Your task to perform on an android device: check battery use Image 0: 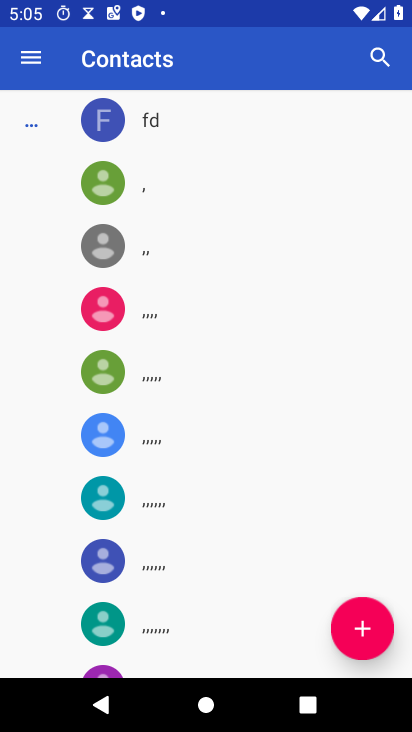
Step 0: press back button
Your task to perform on an android device: check battery use Image 1: 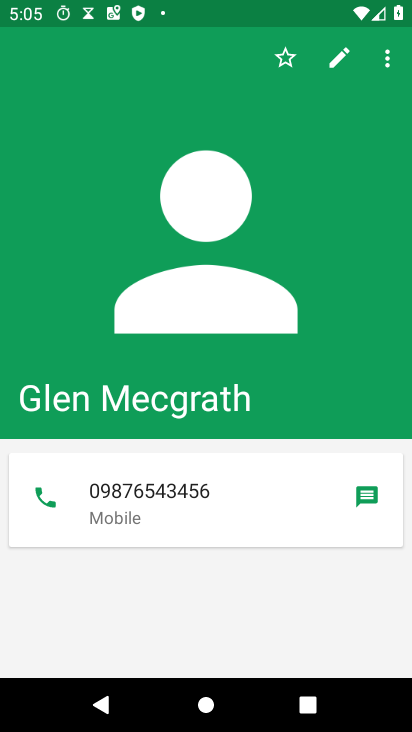
Step 1: press back button
Your task to perform on an android device: check battery use Image 2: 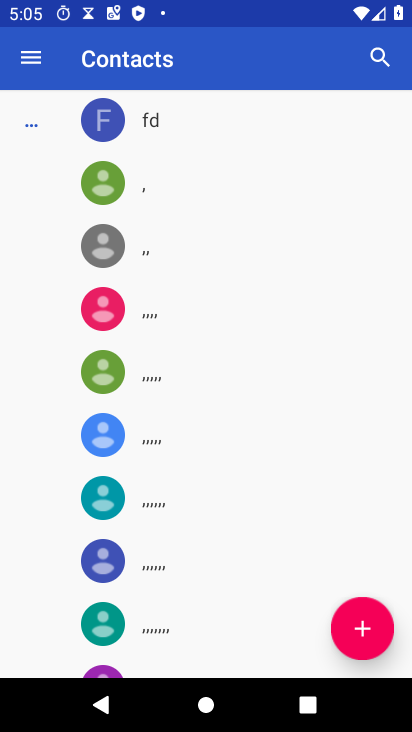
Step 2: press back button
Your task to perform on an android device: check battery use Image 3: 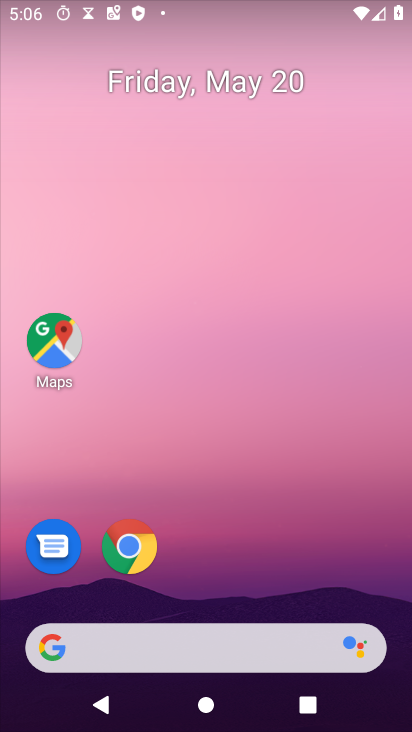
Step 3: drag from (279, 574) to (278, 86)
Your task to perform on an android device: check battery use Image 4: 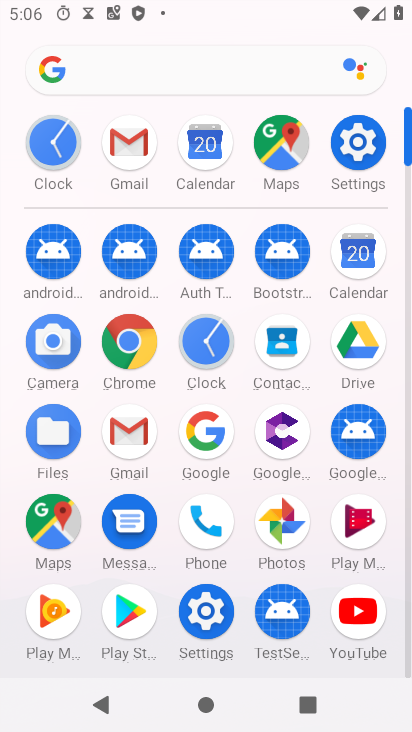
Step 4: click (361, 141)
Your task to perform on an android device: check battery use Image 5: 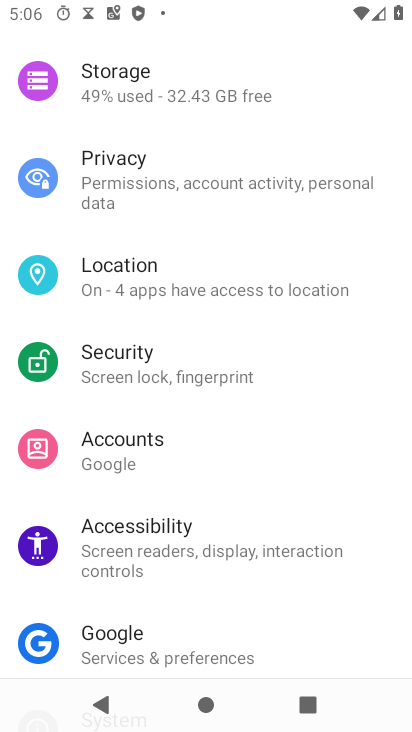
Step 5: drag from (202, 461) to (211, 545)
Your task to perform on an android device: check battery use Image 6: 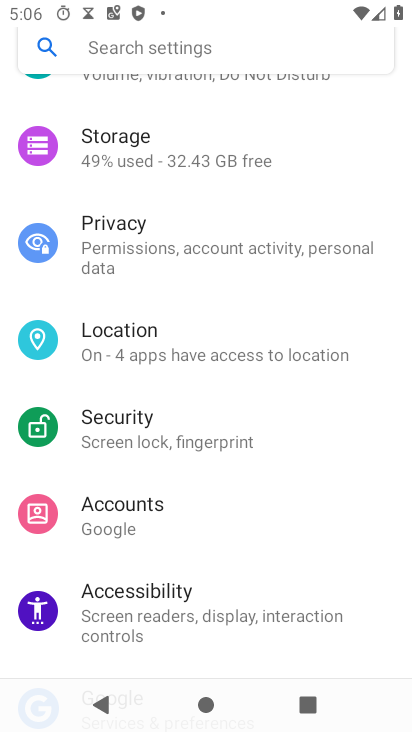
Step 6: drag from (236, 342) to (236, 470)
Your task to perform on an android device: check battery use Image 7: 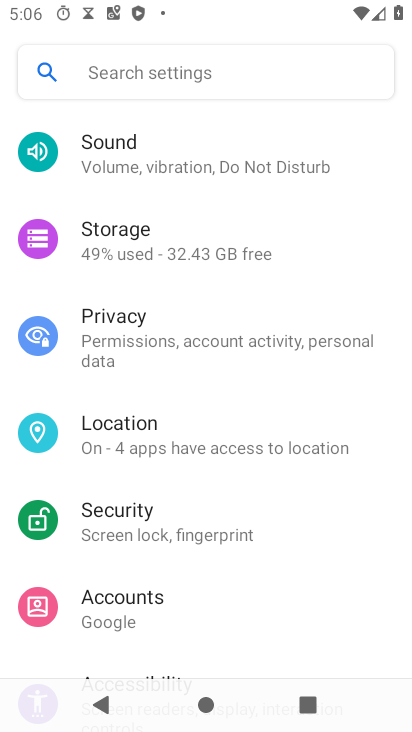
Step 7: drag from (210, 286) to (197, 415)
Your task to perform on an android device: check battery use Image 8: 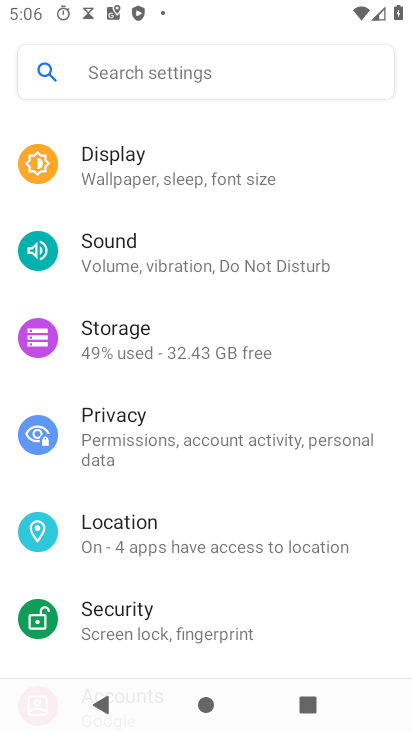
Step 8: drag from (170, 241) to (159, 365)
Your task to perform on an android device: check battery use Image 9: 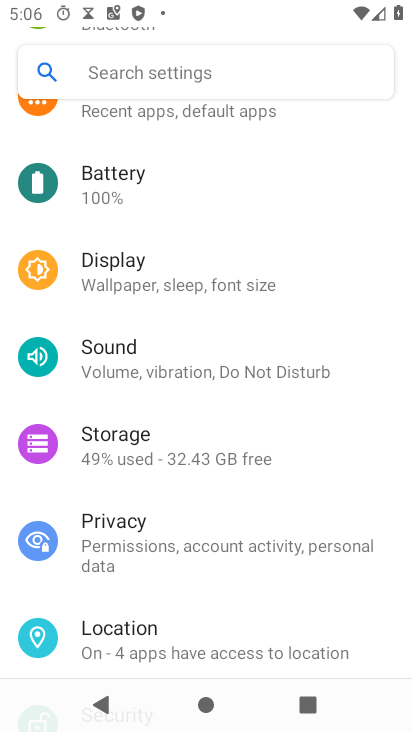
Step 9: click (117, 166)
Your task to perform on an android device: check battery use Image 10: 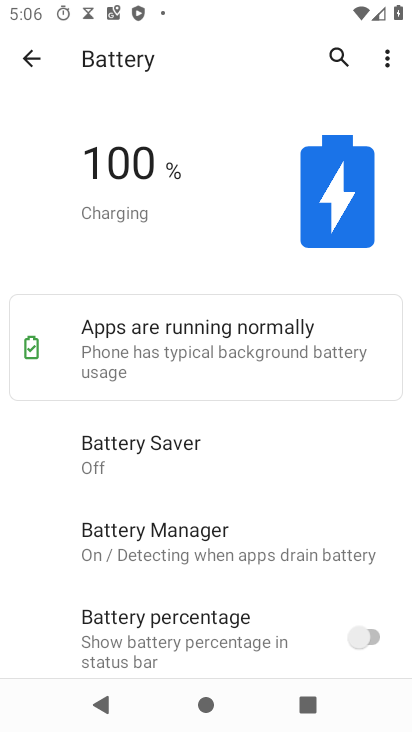
Step 10: click (389, 58)
Your task to perform on an android device: check battery use Image 11: 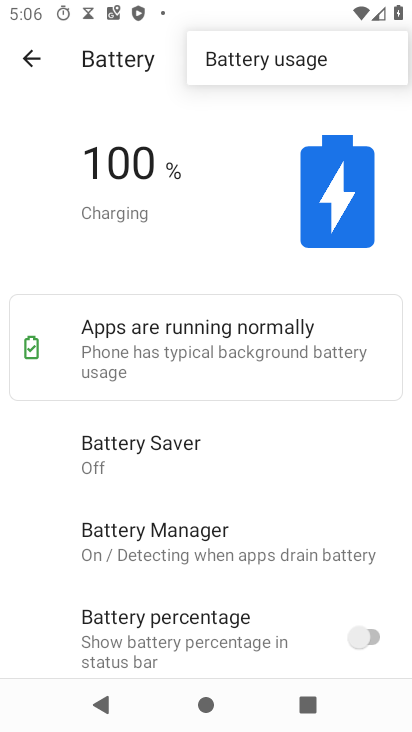
Step 11: click (301, 64)
Your task to perform on an android device: check battery use Image 12: 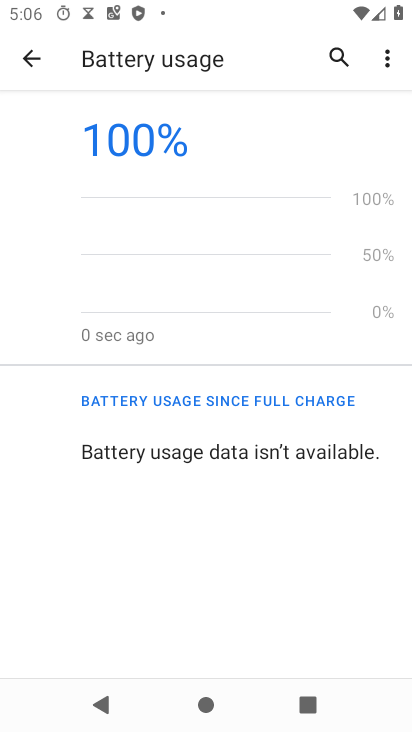
Step 12: task complete